Your task to perform on an android device: When is my next meeting? Image 0: 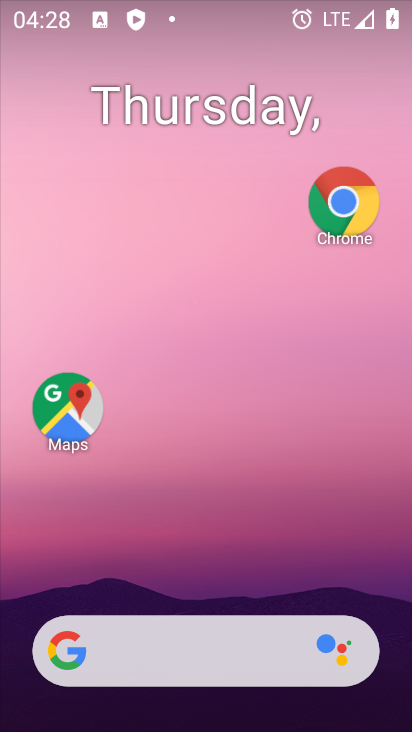
Step 0: drag from (198, 677) to (258, 5)
Your task to perform on an android device: When is my next meeting? Image 1: 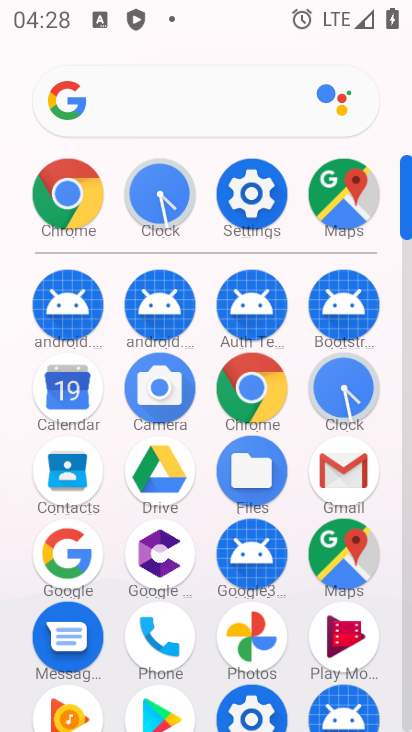
Step 1: click (64, 408)
Your task to perform on an android device: When is my next meeting? Image 2: 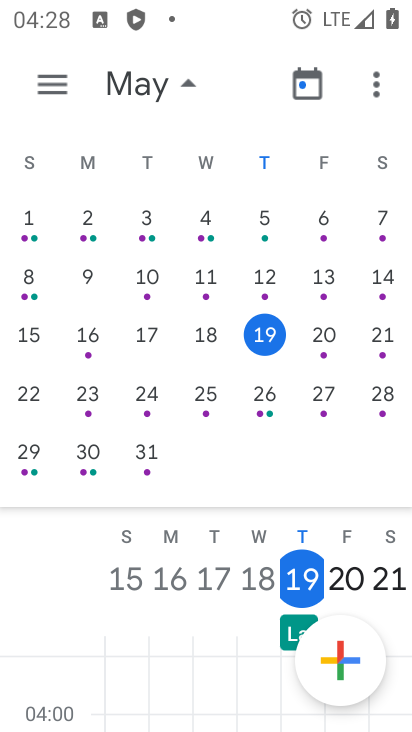
Step 2: click (271, 327)
Your task to perform on an android device: When is my next meeting? Image 3: 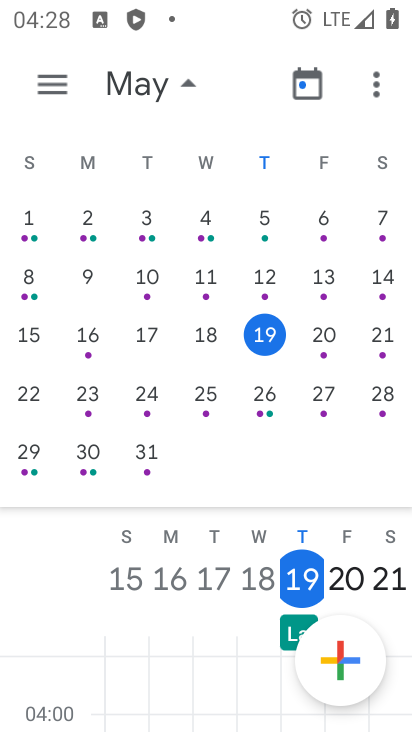
Step 3: task complete